Your task to perform on an android device: Show me popular videos on Youtube Image 0: 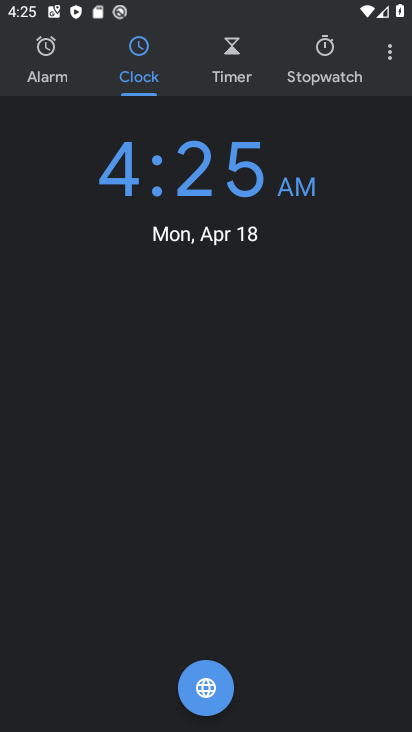
Step 0: press home button
Your task to perform on an android device: Show me popular videos on Youtube Image 1: 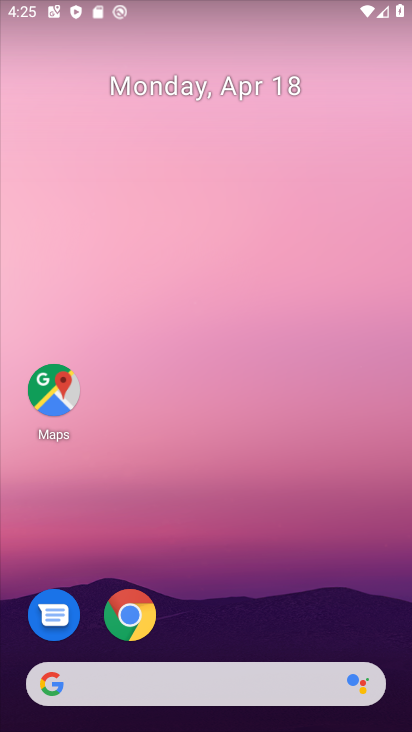
Step 1: drag from (320, 504) to (336, 56)
Your task to perform on an android device: Show me popular videos on Youtube Image 2: 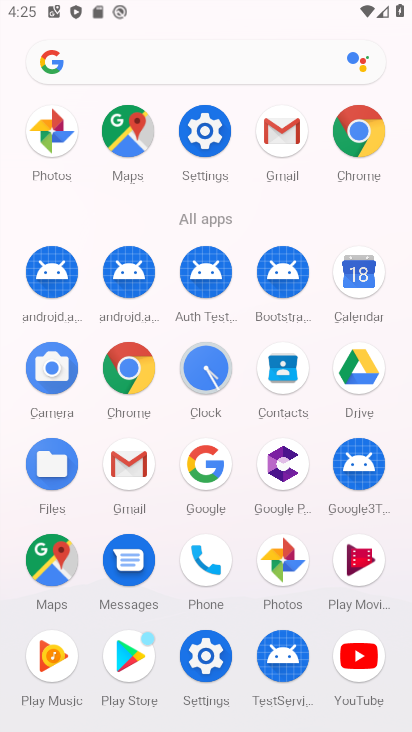
Step 2: drag from (234, 215) to (234, 4)
Your task to perform on an android device: Show me popular videos on Youtube Image 3: 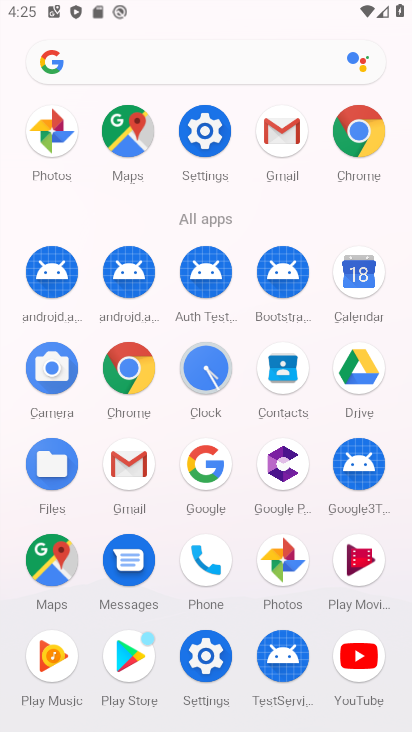
Step 3: click (359, 667)
Your task to perform on an android device: Show me popular videos on Youtube Image 4: 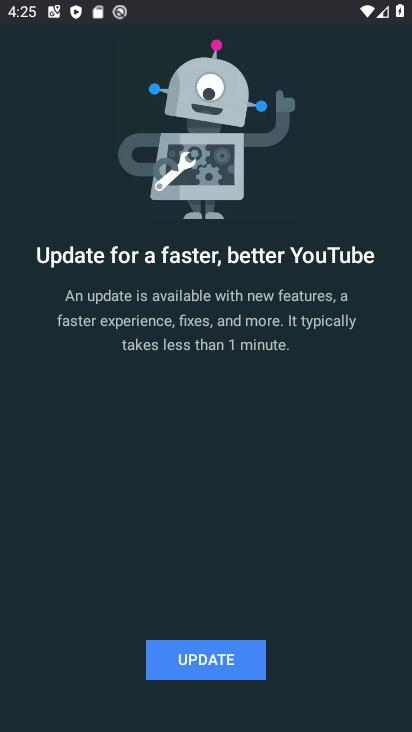
Step 4: click (233, 656)
Your task to perform on an android device: Show me popular videos on Youtube Image 5: 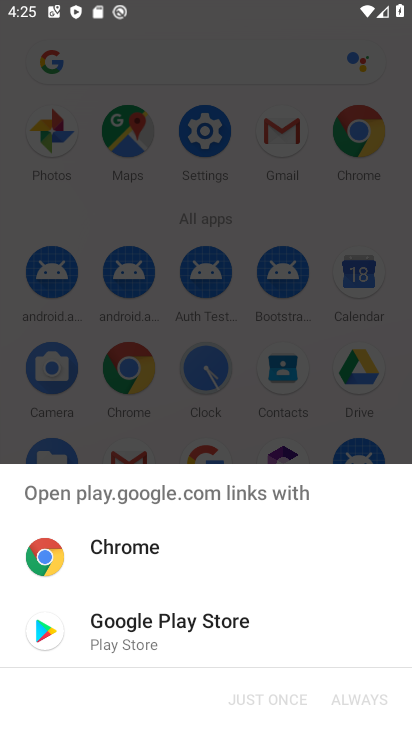
Step 5: click (162, 640)
Your task to perform on an android device: Show me popular videos on Youtube Image 6: 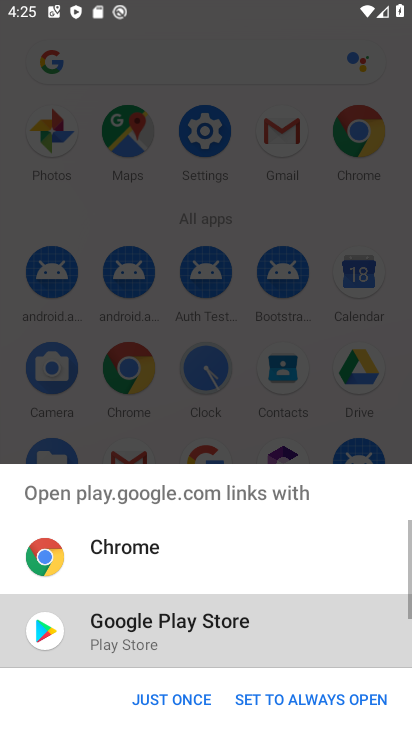
Step 6: click (169, 707)
Your task to perform on an android device: Show me popular videos on Youtube Image 7: 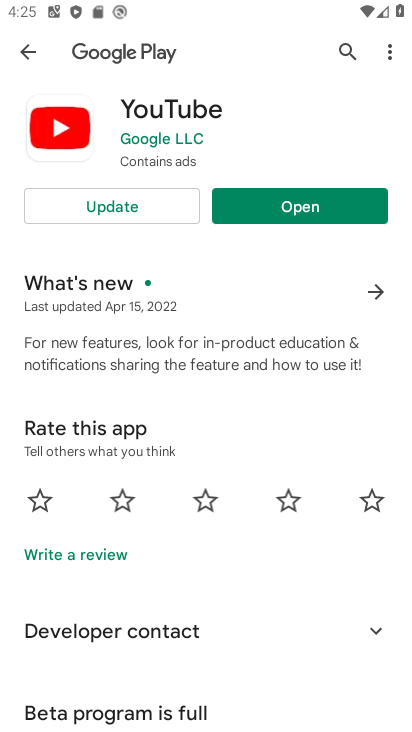
Step 7: click (133, 198)
Your task to perform on an android device: Show me popular videos on Youtube Image 8: 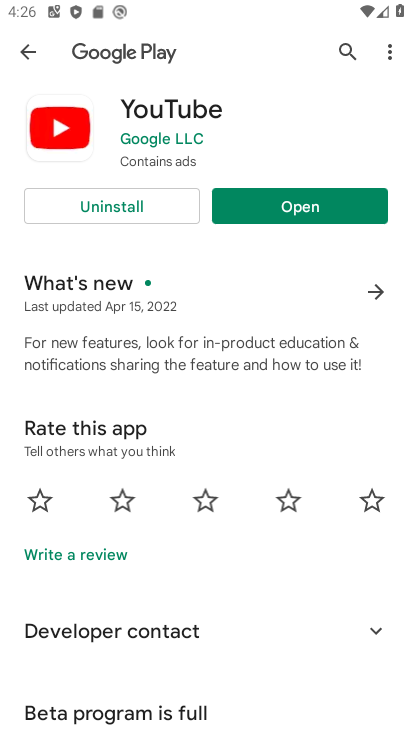
Step 8: click (272, 201)
Your task to perform on an android device: Show me popular videos on Youtube Image 9: 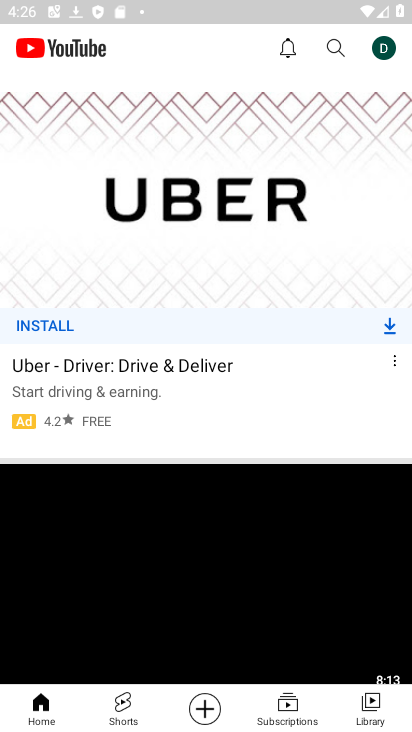
Step 9: drag from (219, 450) to (161, 588)
Your task to perform on an android device: Show me popular videos on Youtube Image 10: 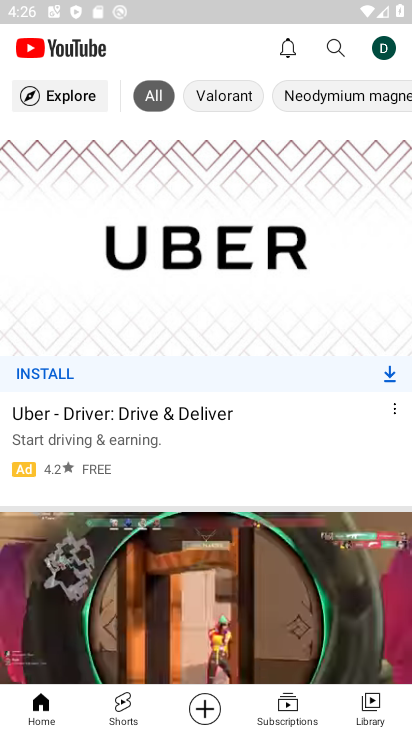
Step 10: drag from (224, 88) to (295, 106)
Your task to perform on an android device: Show me popular videos on Youtube Image 11: 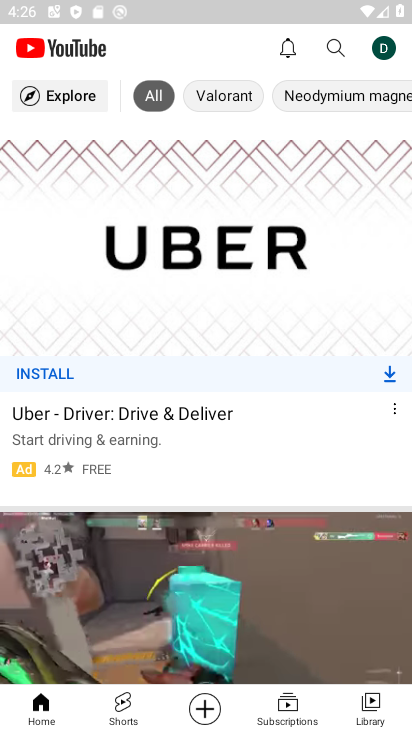
Step 11: click (45, 95)
Your task to perform on an android device: Show me popular videos on Youtube Image 12: 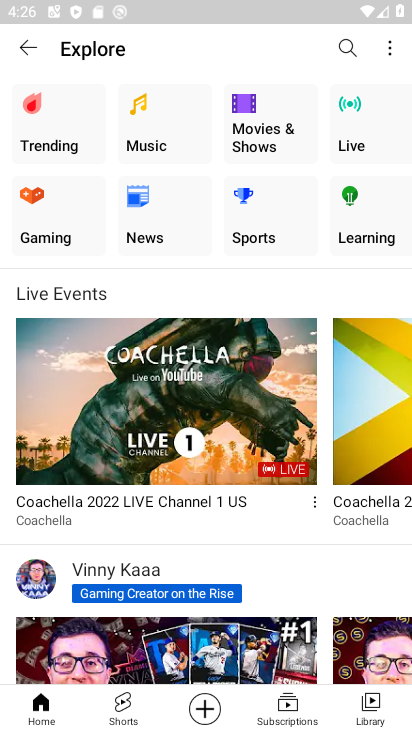
Step 12: click (353, 47)
Your task to perform on an android device: Show me popular videos on Youtube Image 13: 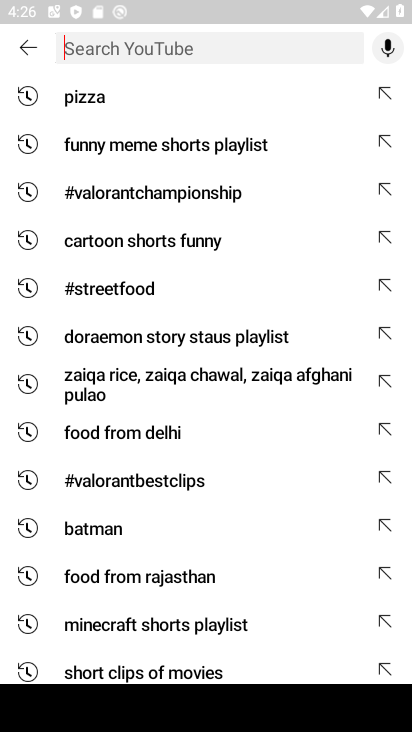
Step 13: type "popular videos"
Your task to perform on an android device: Show me popular videos on Youtube Image 14: 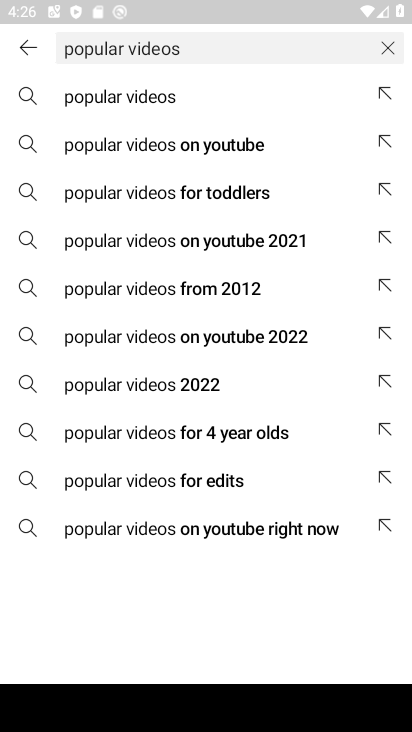
Step 14: click (133, 89)
Your task to perform on an android device: Show me popular videos on Youtube Image 15: 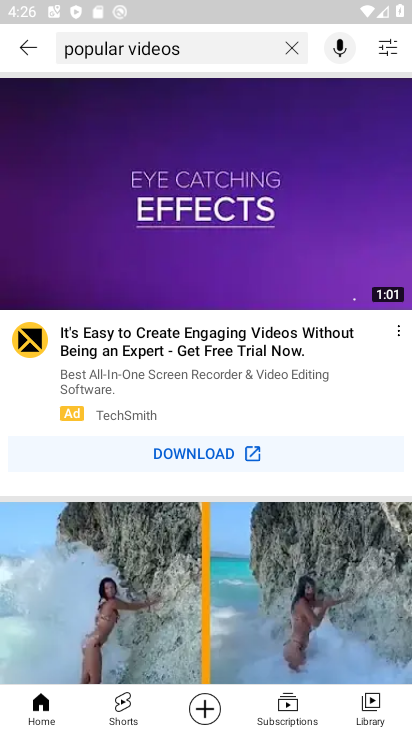
Step 15: task complete